Your task to perform on an android device: open a bookmark in the chrome app Image 0: 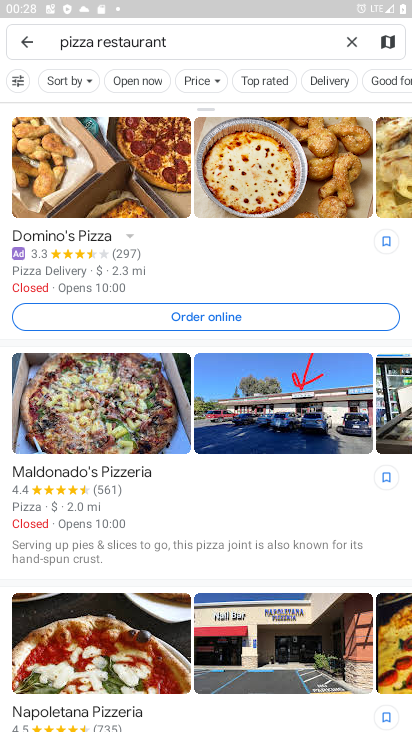
Step 0: press home button
Your task to perform on an android device: open a bookmark in the chrome app Image 1: 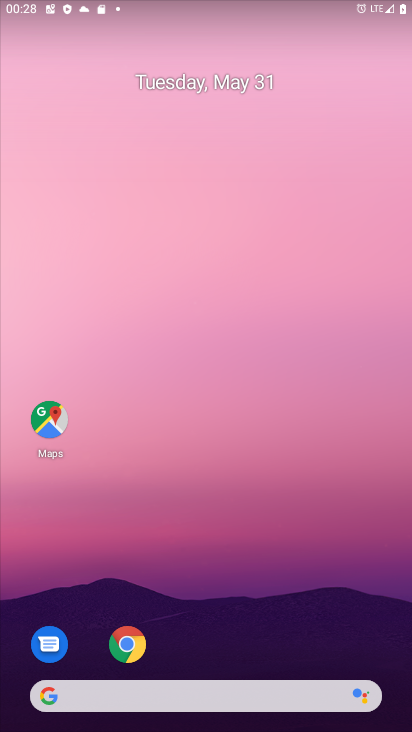
Step 1: click (130, 645)
Your task to perform on an android device: open a bookmark in the chrome app Image 2: 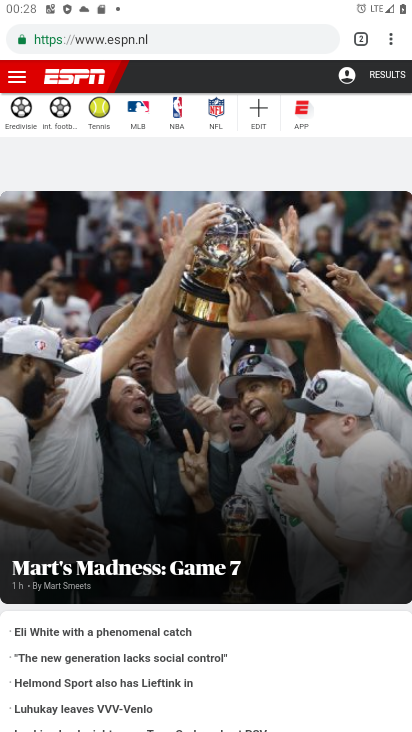
Step 2: click (391, 42)
Your task to perform on an android device: open a bookmark in the chrome app Image 3: 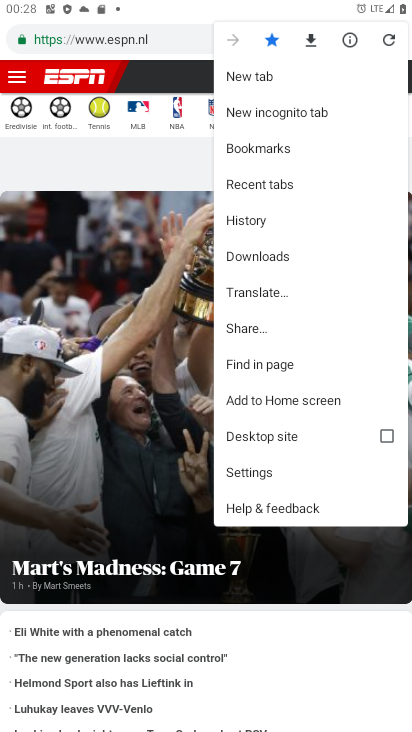
Step 3: click (257, 148)
Your task to perform on an android device: open a bookmark in the chrome app Image 4: 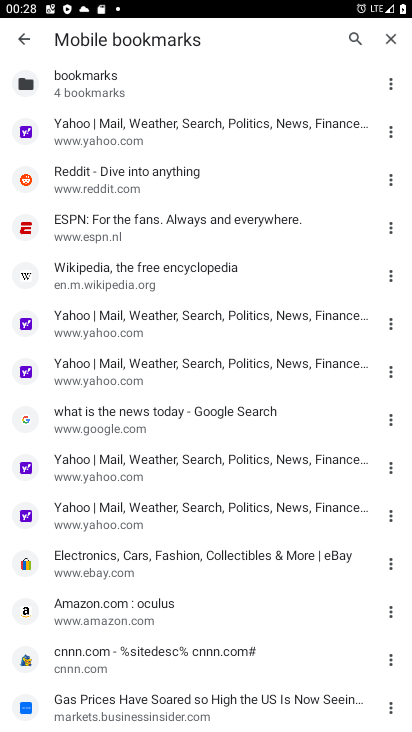
Step 4: task complete